Your task to perform on an android device: turn notification dots on Image 0: 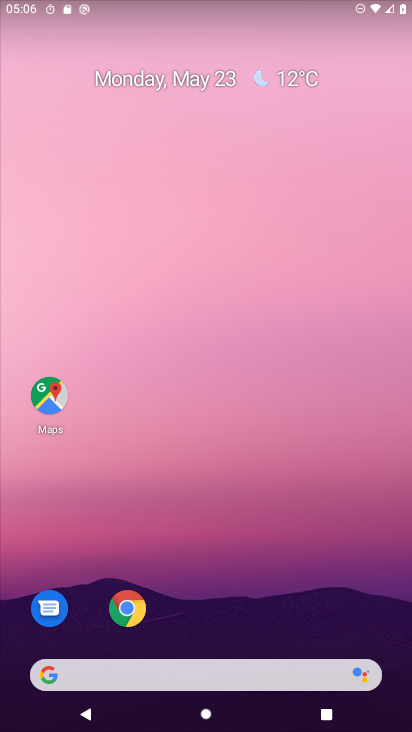
Step 0: drag from (254, 446) to (167, 12)
Your task to perform on an android device: turn notification dots on Image 1: 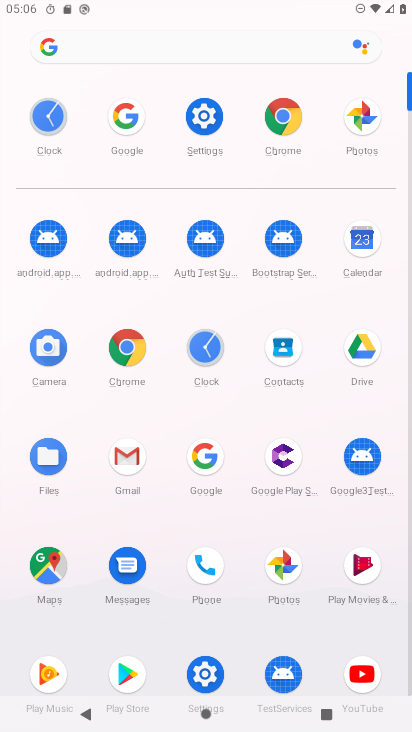
Step 1: click (211, 133)
Your task to perform on an android device: turn notification dots on Image 2: 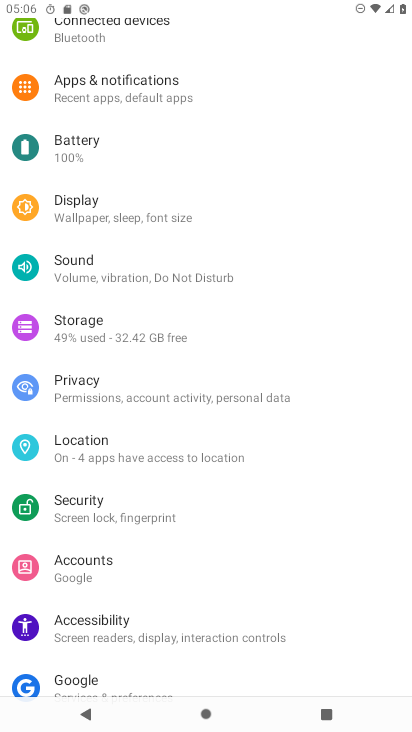
Step 2: click (176, 88)
Your task to perform on an android device: turn notification dots on Image 3: 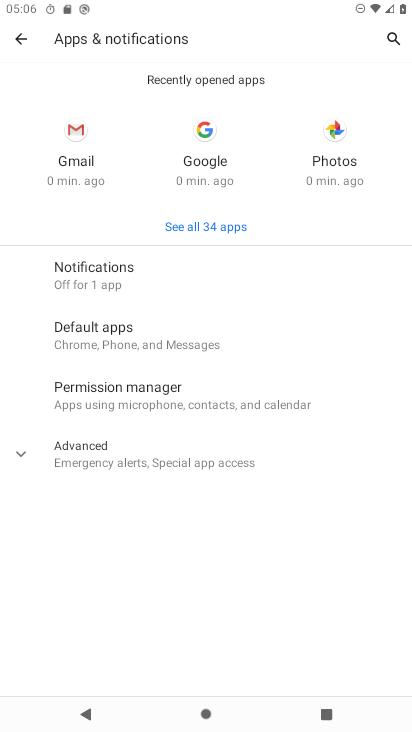
Step 3: click (126, 279)
Your task to perform on an android device: turn notification dots on Image 4: 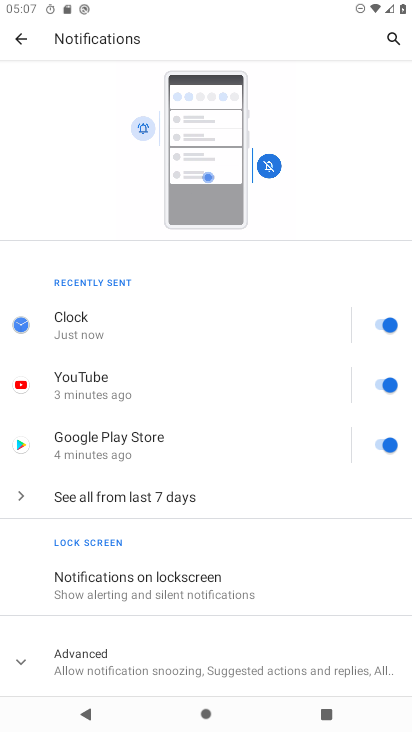
Step 4: click (188, 666)
Your task to perform on an android device: turn notification dots on Image 5: 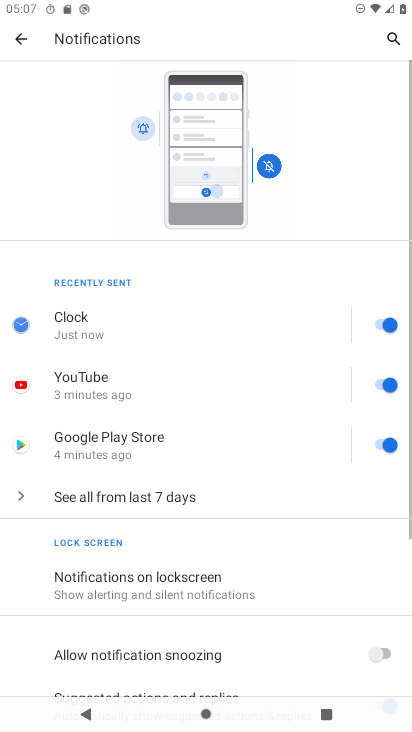
Step 5: drag from (217, 650) to (219, 274)
Your task to perform on an android device: turn notification dots on Image 6: 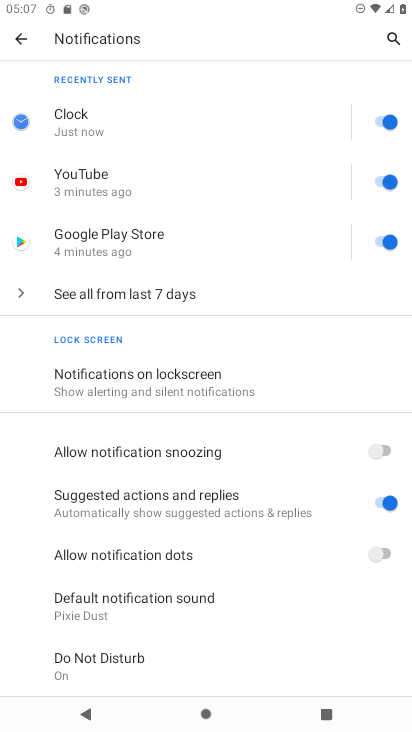
Step 6: click (383, 551)
Your task to perform on an android device: turn notification dots on Image 7: 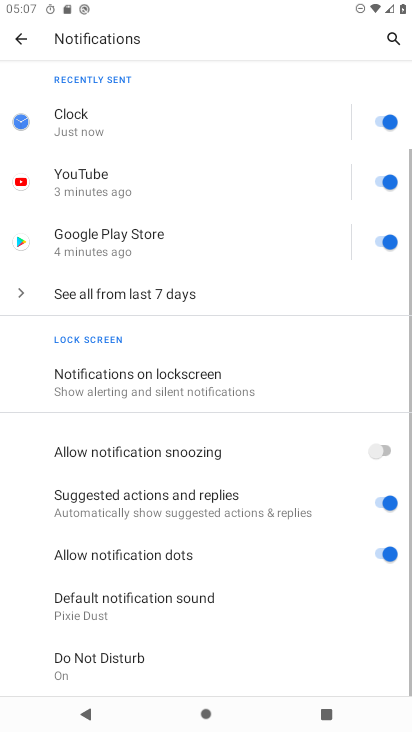
Step 7: task complete